Your task to perform on an android device: turn off notifications settings in the gmail app Image 0: 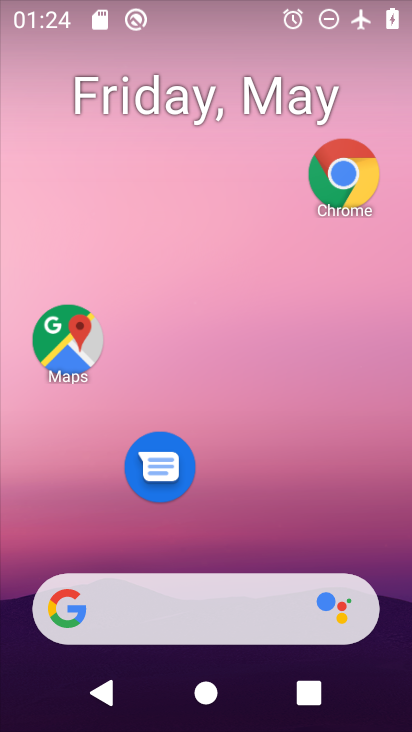
Step 0: drag from (269, 524) to (291, 251)
Your task to perform on an android device: turn off notifications settings in the gmail app Image 1: 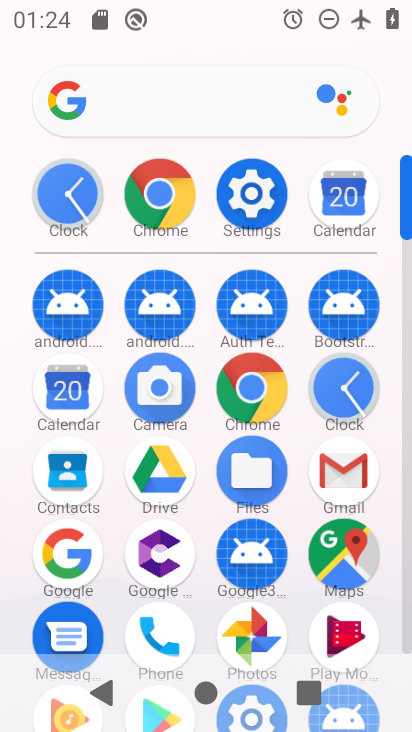
Step 1: click (339, 456)
Your task to perform on an android device: turn off notifications settings in the gmail app Image 2: 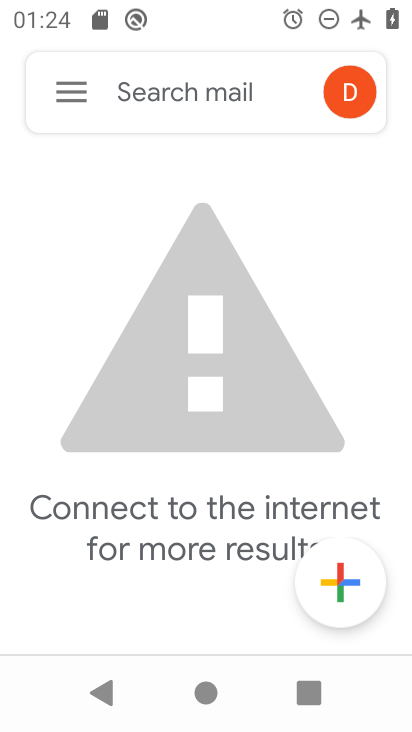
Step 2: click (79, 89)
Your task to perform on an android device: turn off notifications settings in the gmail app Image 3: 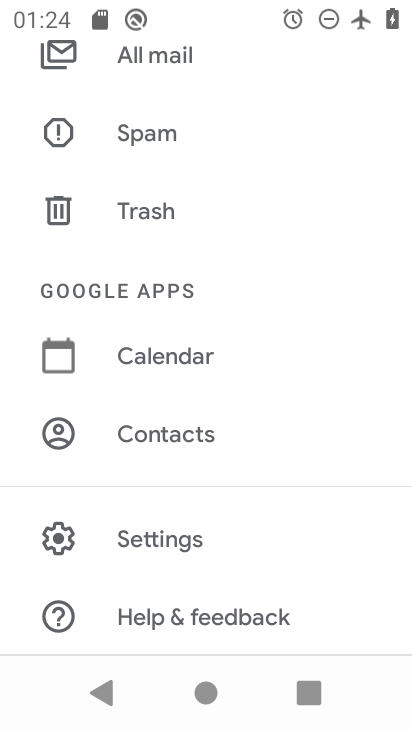
Step 3: click (162, 531)
Your task to perform on an android device: turn off notifications settings in the gmail app Image 4: 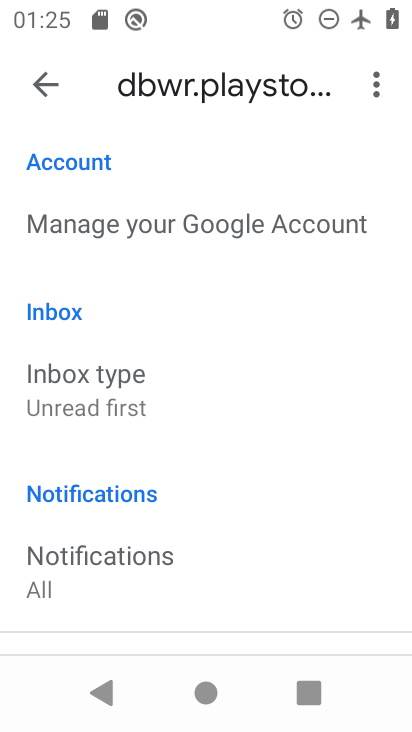
Step 4: click (152, 549)
Your task to perform on an android device: turn off notifications settings in the gmail app Image 5: 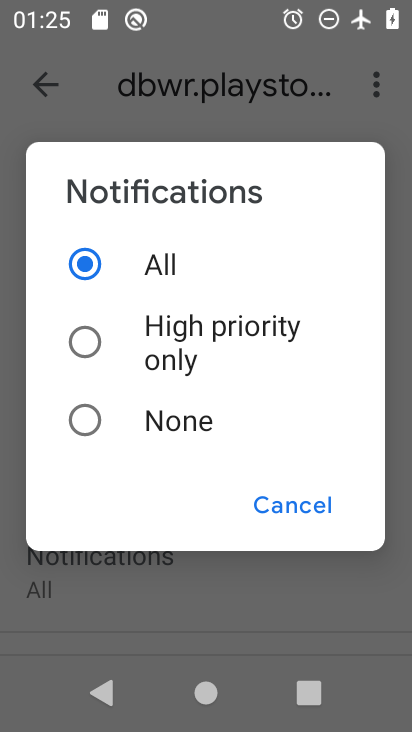
Step 5: click (145, 428)
Your task to perform on an android device: turn off notifications settings in the gmail app Image 6: 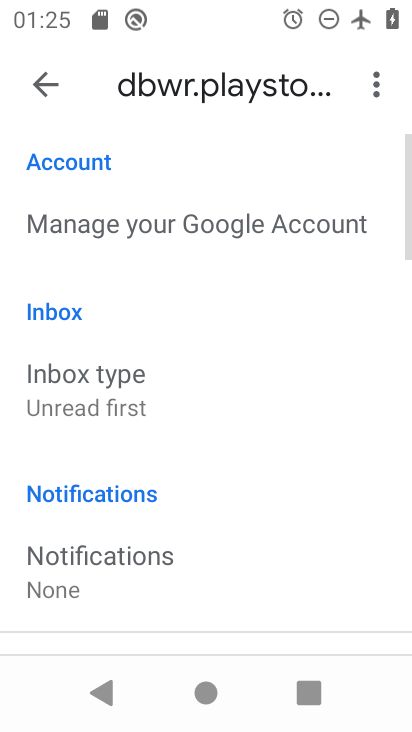
Step 6: task complete